Your task to perform on an android device: Go to privacy settings Image 0: 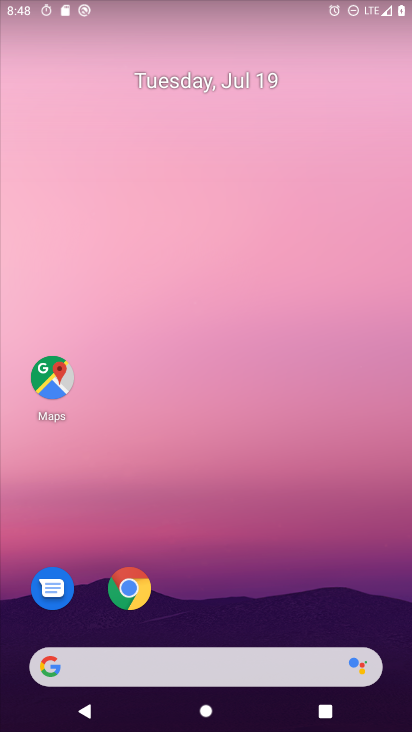
Step 0: drag from (201, 597) to (294, 158)
Your task to perform on an android device: Go to privacy settings Image 1: 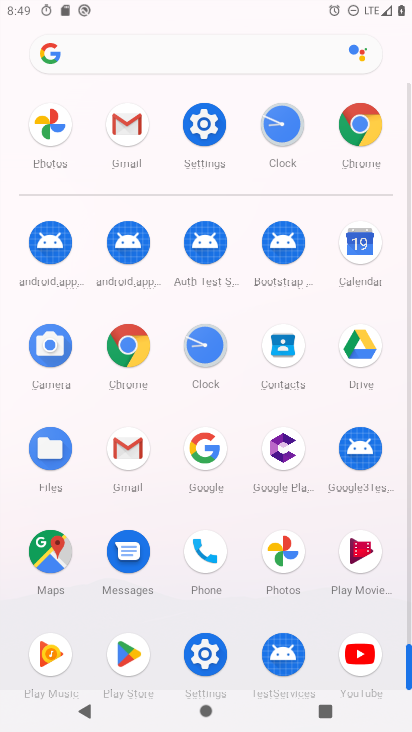
Step 1: click (205, 638)
Your task to perform on an android device: Go to privacy settings Image 2: 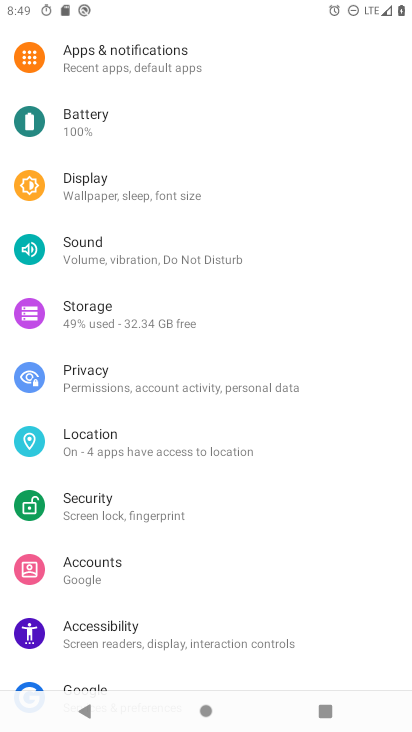
Step 2: click (156, 379)
Your task to perform on an android device: Go to privacy settings Image 3: 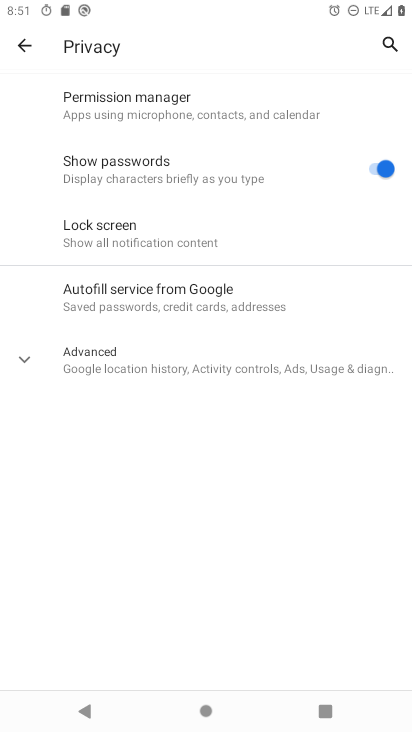
Step 3: task complete